Your task to perform on an android device: open app "Google Pay: Save, Pay, Manage" (install if not already installed) Image 0: 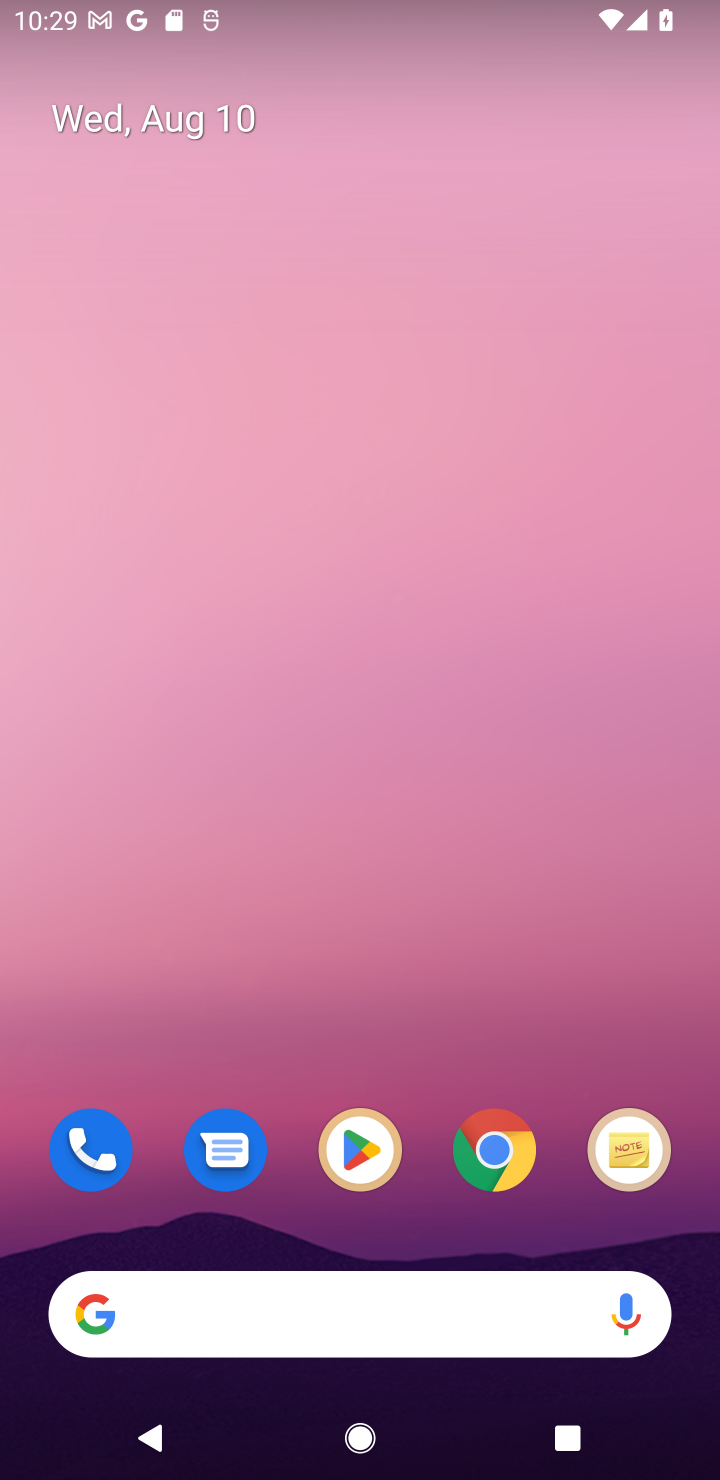
Step 0: click (372, 1154)
Your task to perform on an android device: open app "Google Pay: Save, Pay, Manage" (install if not already installed) Image 1: 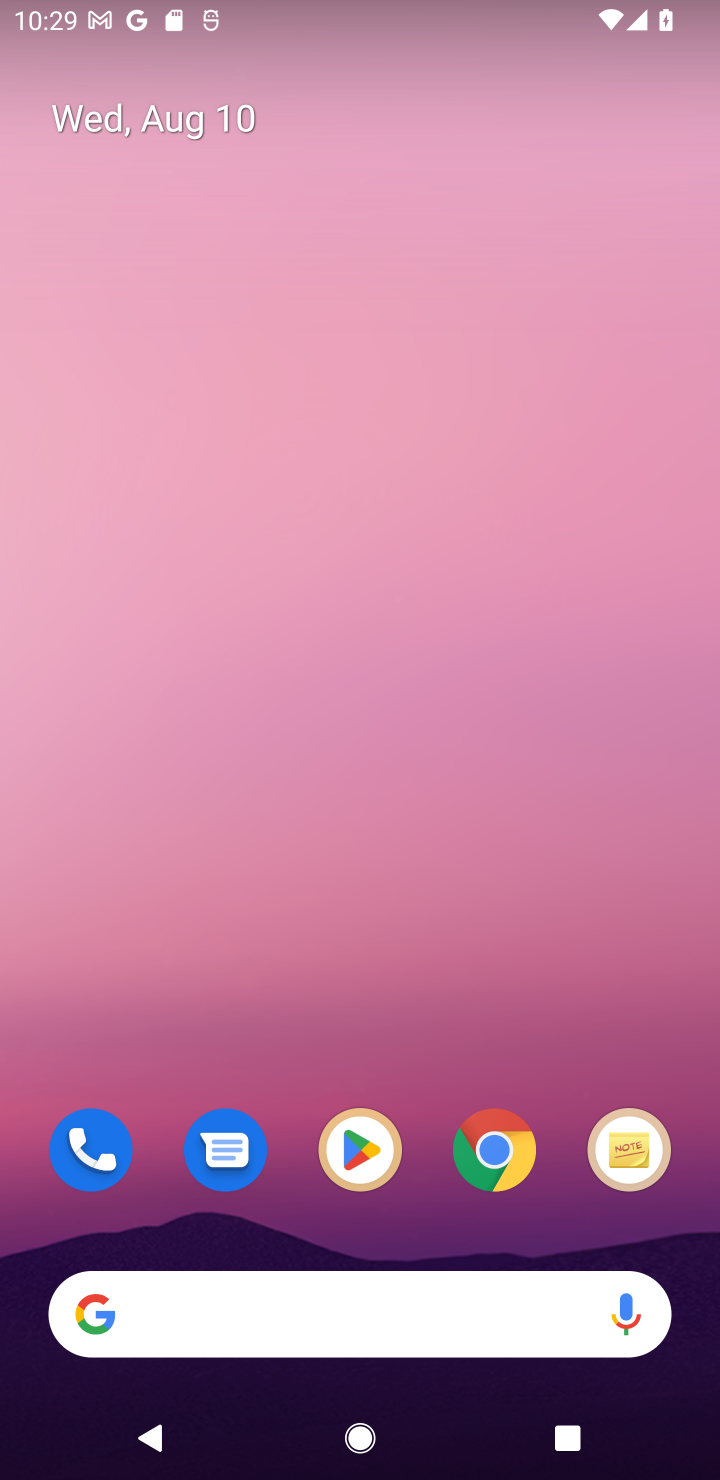
Step 1: click (356, 1143)
Your task to perform on an android device: open app "Google Pay: Save, Pay, Manage" (install if not already installed) Image 2: 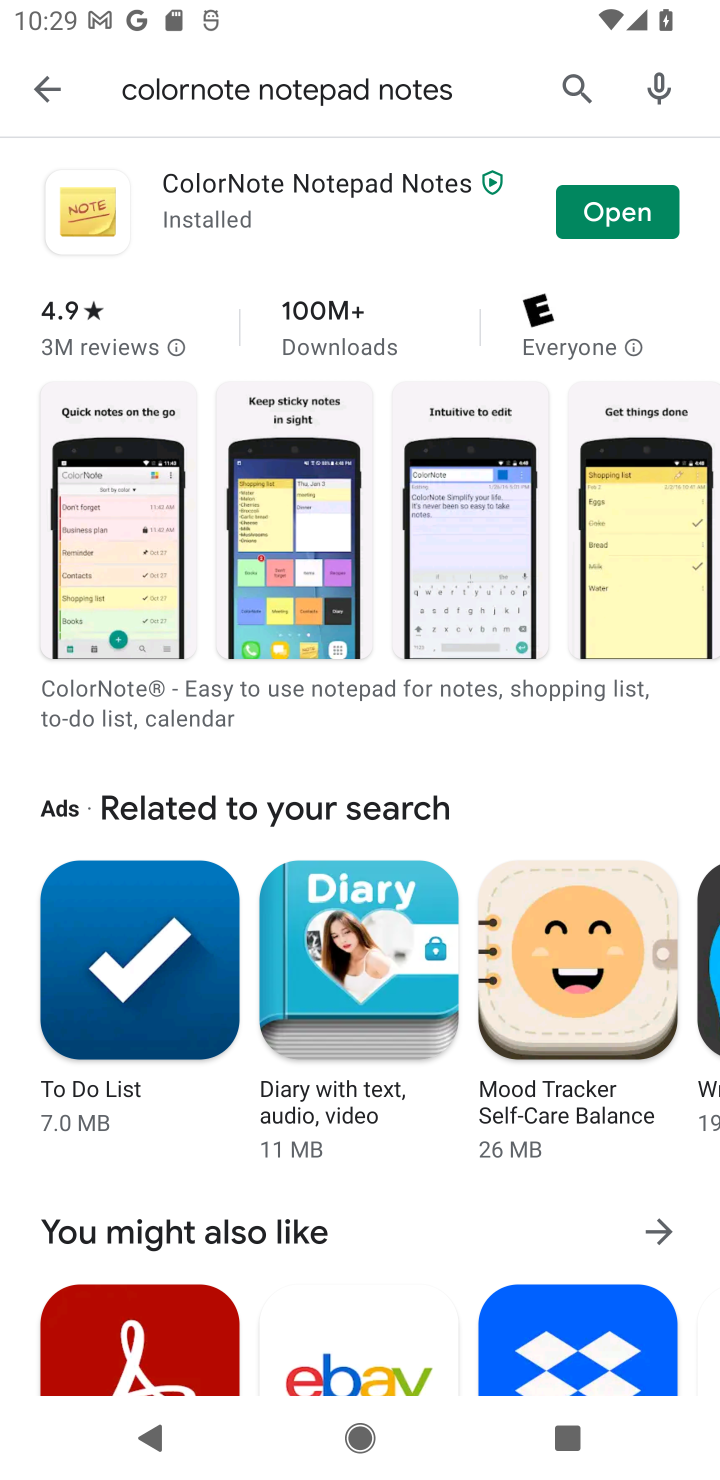
Step 2: click (569, 93)
Your task to perform on an android device: open app "Google Pay: Save, Pay, Manage" (install if not already installed) Image 3: 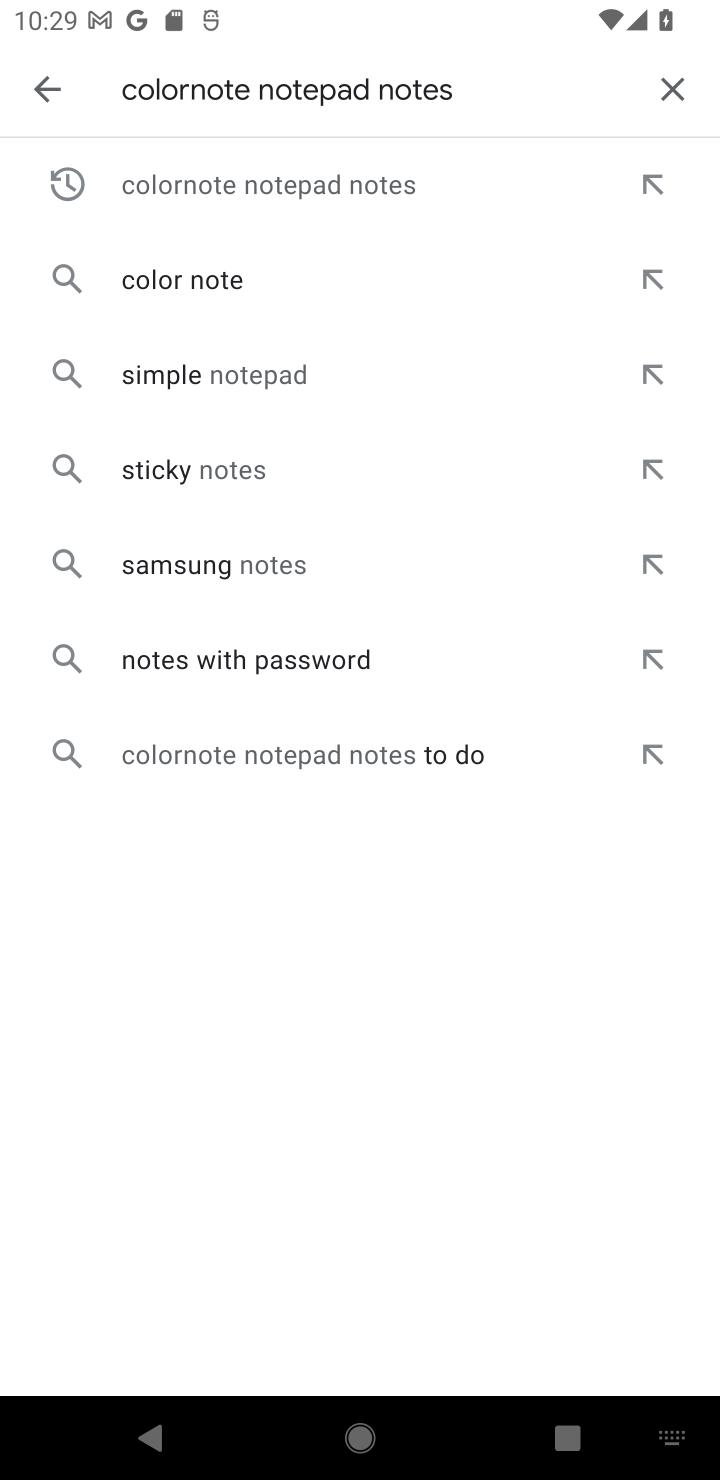
Step 3: click (664, 77)
Your task to perform on an android device: open app "Google Pay: Save, Pay, Manage" (install if not already installed) Image 4: 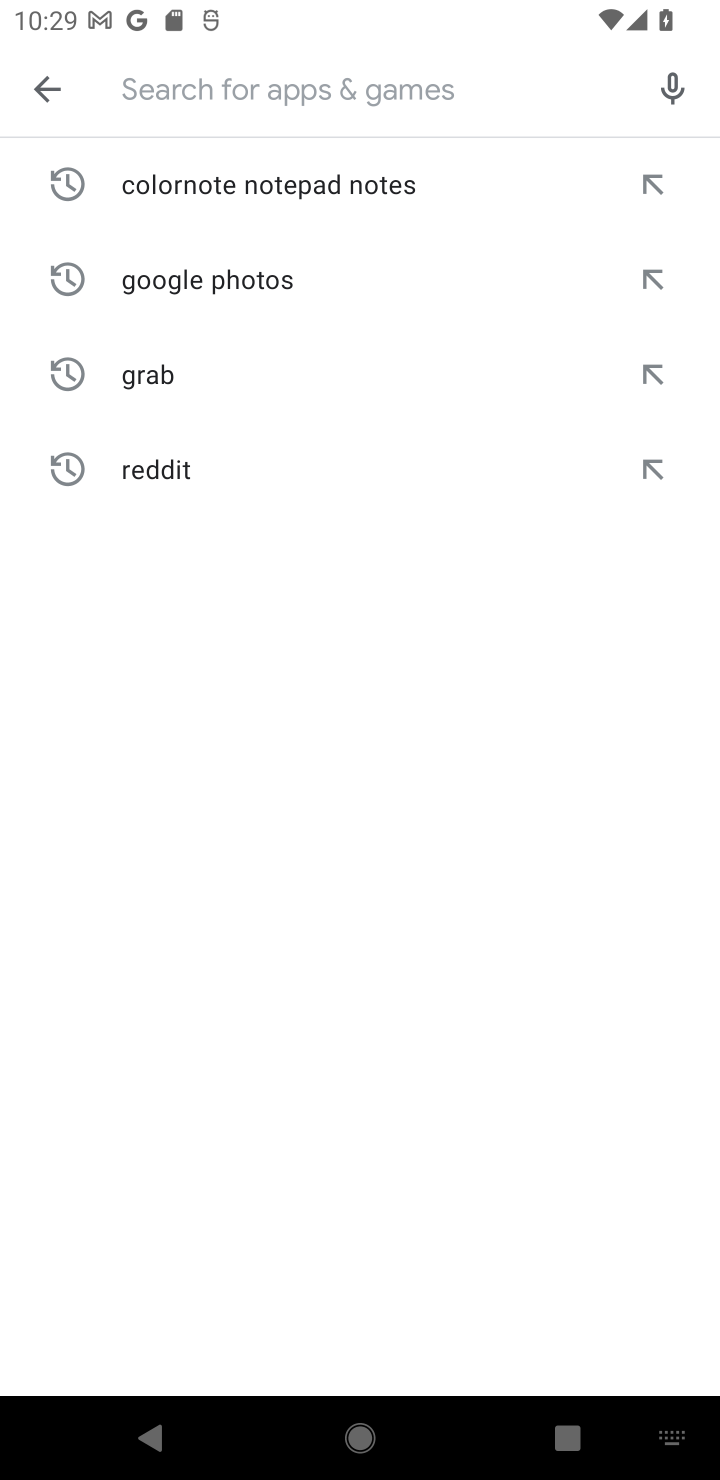
Step 4: type "Google Pay: Save, Pay, Manage"
Your task to perform on an android device: open app "Google Pay: Save, Pay, Manage" (install if not already installed) Image 5: 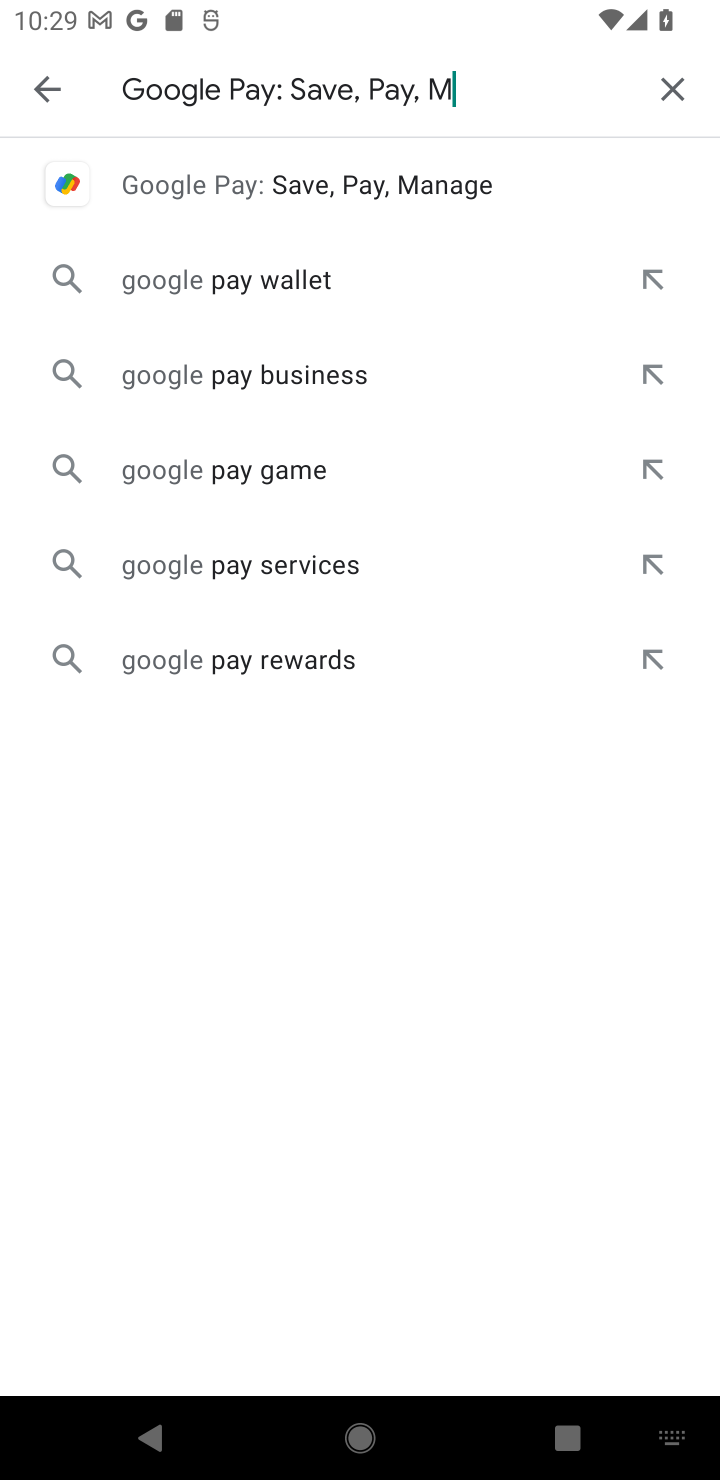
Step 5: type ""
Your task to perform on an android device: open app "Google Pay: Save, Pay, Manage" (install if not already installed) Image 6: 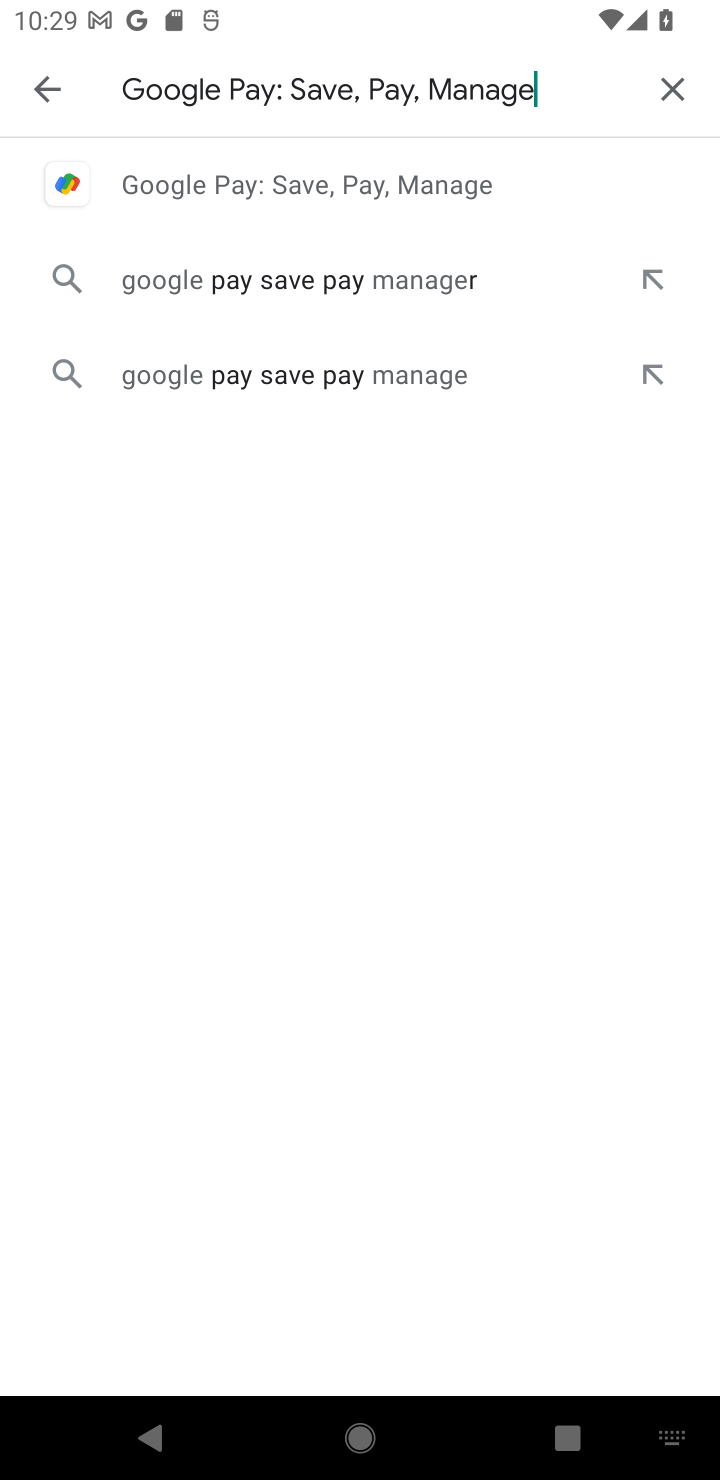
Step 6: click (311, 179)
Your task to perform on an android device: open app "Google Pay: Save, Pay, Manage" (install if not already installed) Image 7: 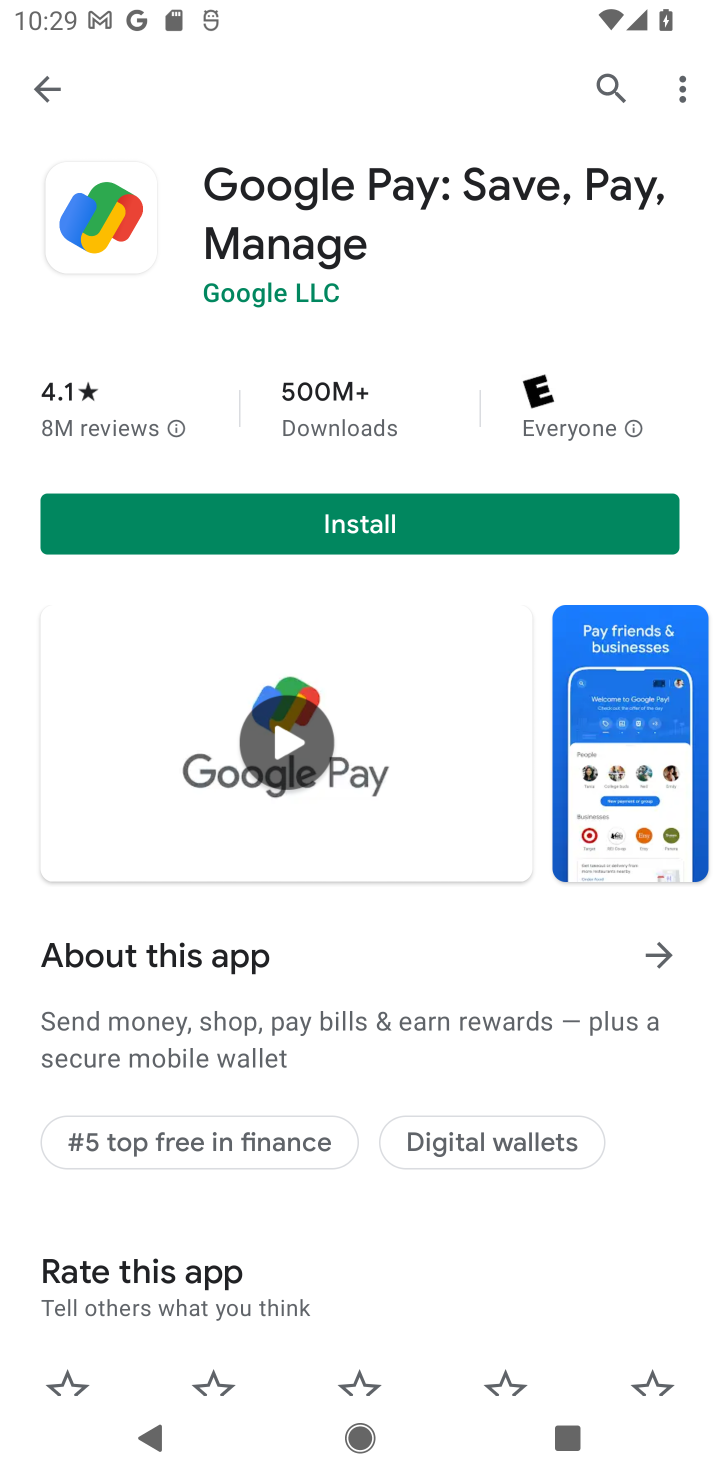
Step 7: click (398, 524)
Your task to perform on an android device: open app "Google Pay: Save, Pay, Manage" (install if not already installed) Image 8: 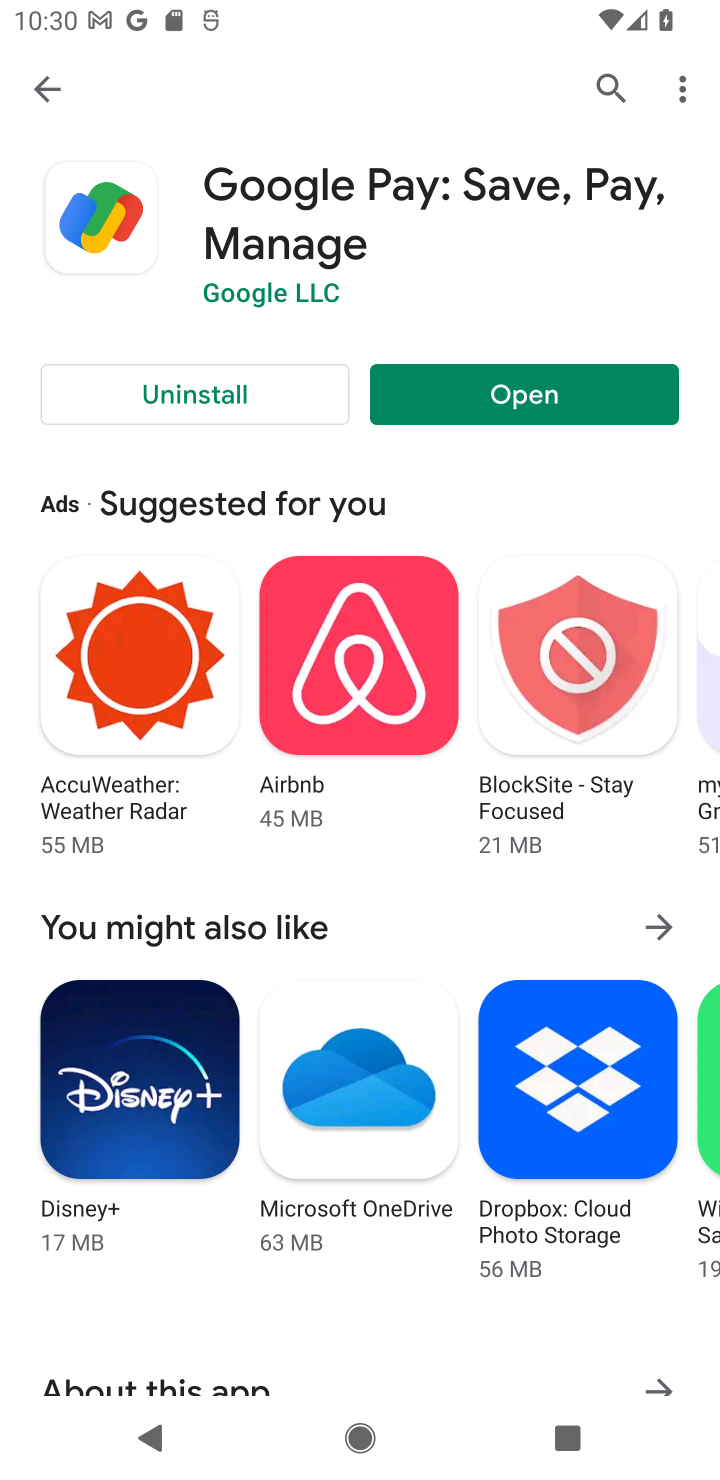
Step 8: click (560, 376)
Your task to perform on an android device: open app "Google Pay: Save, Pay, Manage" (install if not already installed) Image 9: 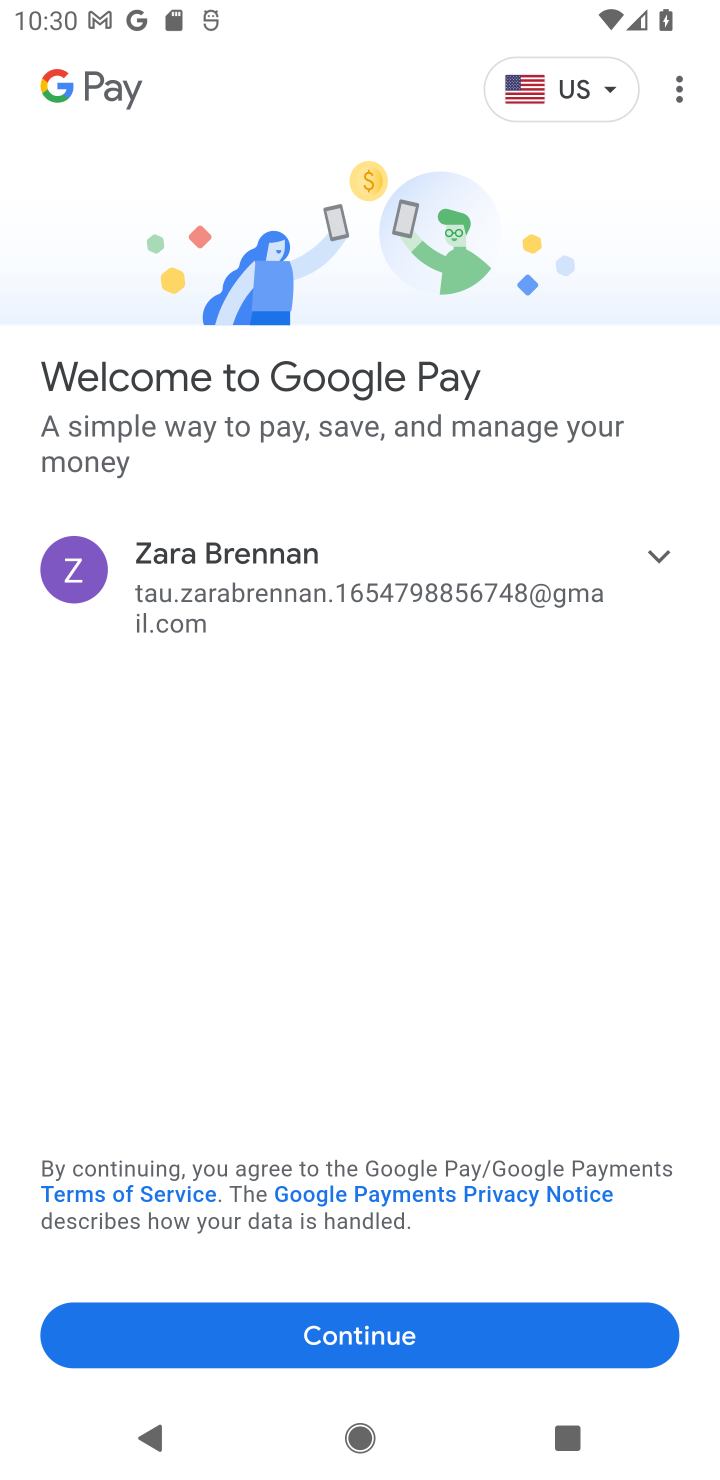
Step 9: task complete